Your task to perform on an android device: Open calendar and show me the second week of next month Image 0: 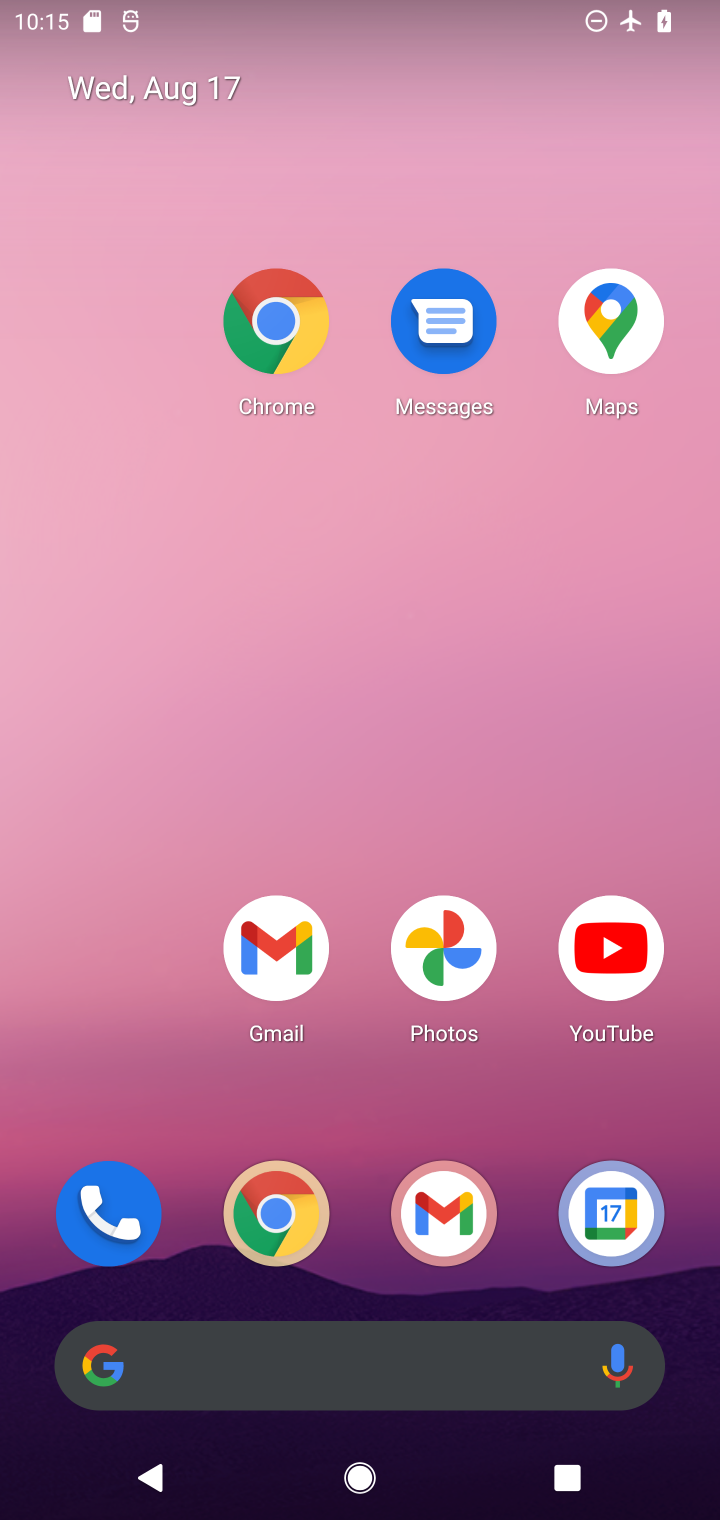
Step 0: click (582, 1251)
Your task to perform on an android device: Open calendar and show me the second week of next month Image 1: 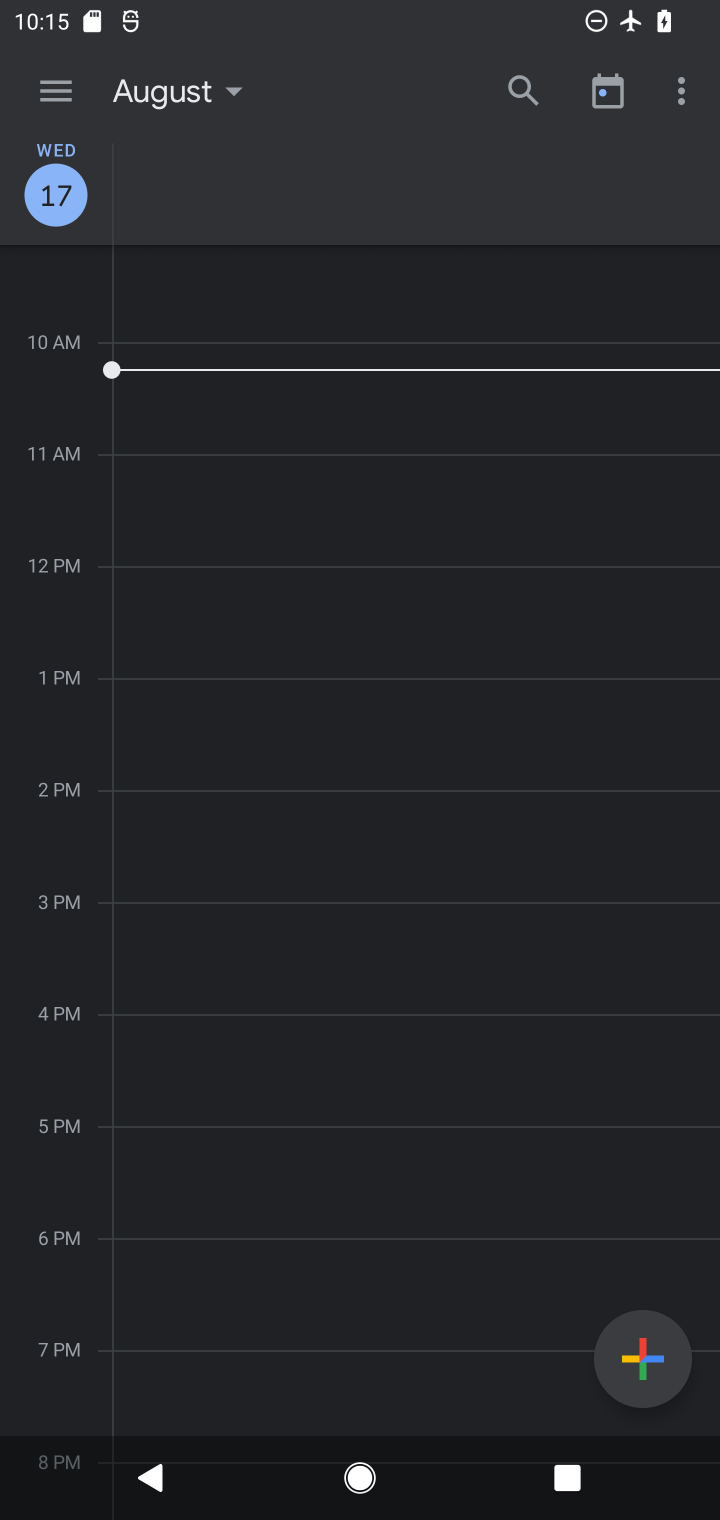
Step 1: task complete